Your task to perform on an android device: see tabs open on other devices in the chrome app Image 0: 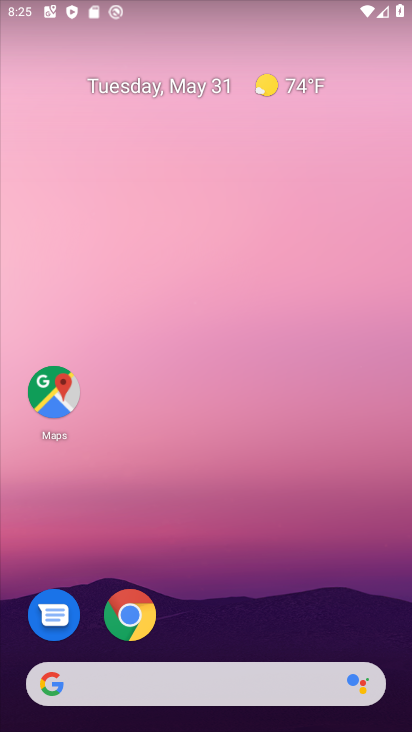
Step 0: click (155, 621)
Your task to perform on an android device: see tabs open on other devices in the chrome app Image 1: 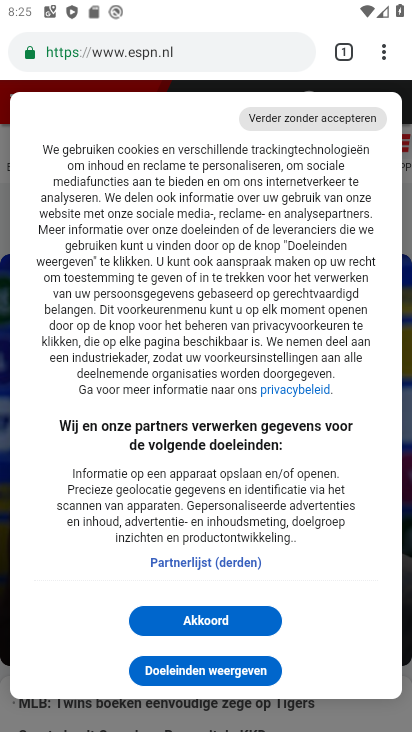
Step 1: click (241, 609)
Your task to perform on an android device: see tabs open on other devices in the chrome app Image 2: 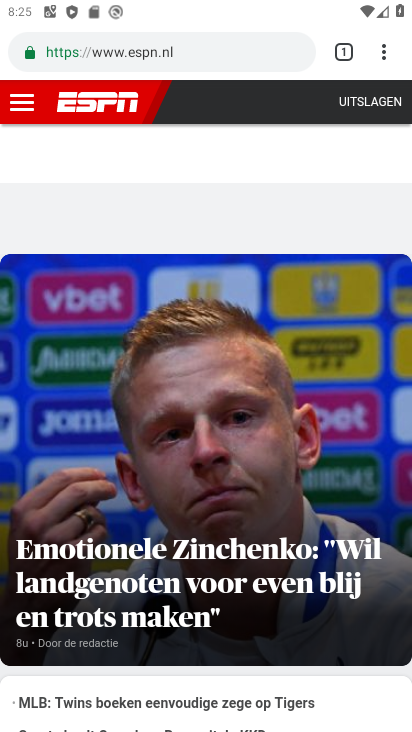
Step 2: task complete